Your task to perform on an android device: turn off javascript in the chrome app Image 0: 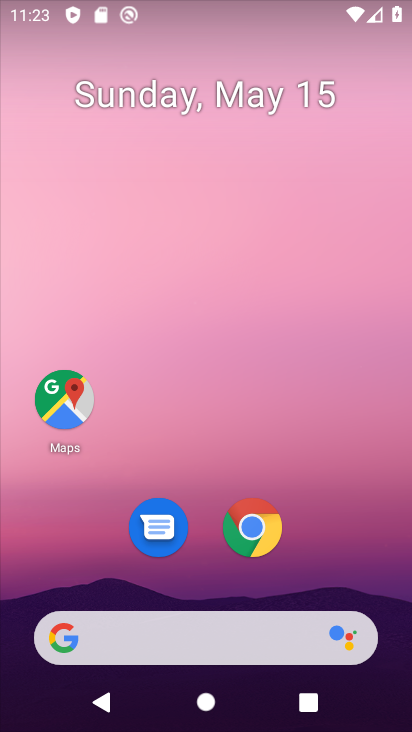
Step 0: drag from (320, 579) to (299, 121)
Your task to perform on an android device: turn off javascript in the chrome app Image 1: 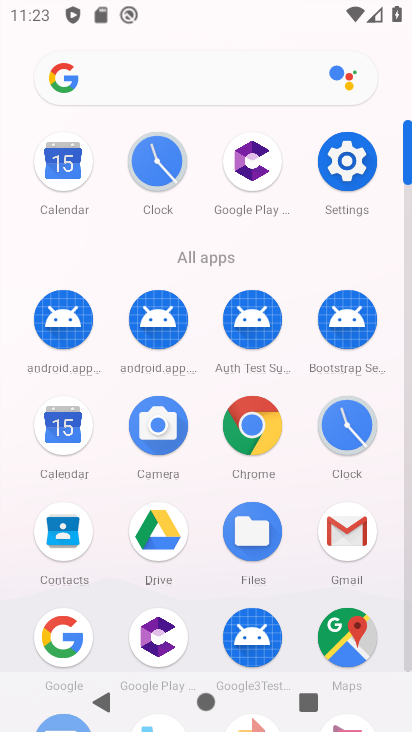
Step 1: click (256, 413)
Your task to perform on an android device: turn off javascript in the chrome app Image 2: 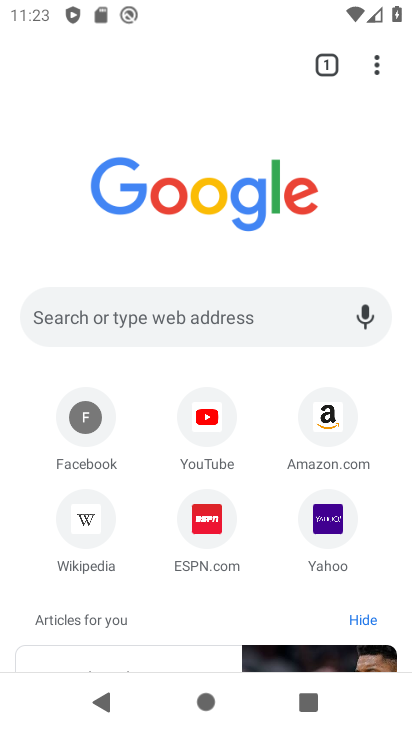
Step 2: click (387, 64)
Your task to perform on an android device: turn off javascript in the chrome app Image 3: 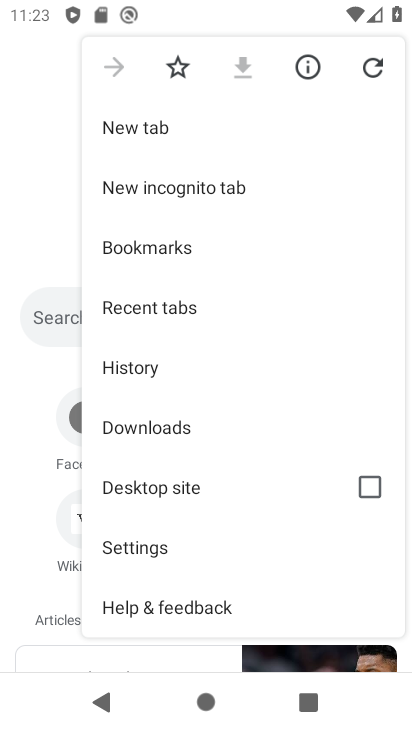
Step 3: click (183, 542)
Your task to perform on an android device: turn off javascript in the chrome app Image 4: 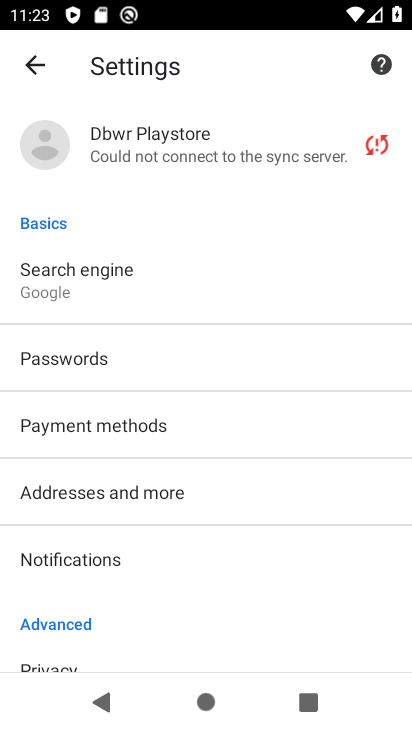
Step 4: drag from (185, 564) to (185, 237)
Your task to perform on an android device: turn off javascript in the chrome app Image 5: 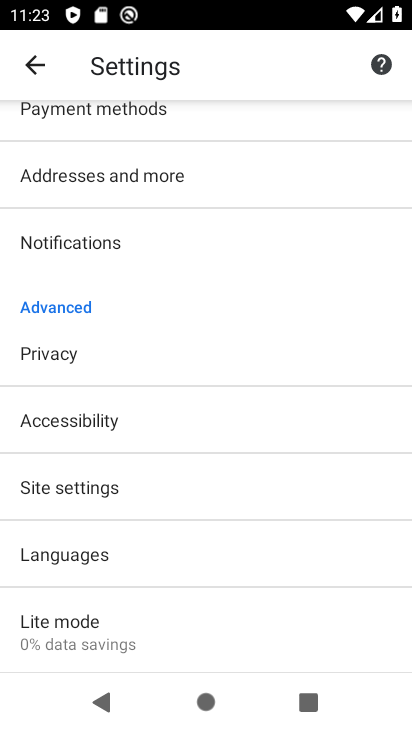
Step 5: click (246, 498)
Your task to perform on an android device: turn off javascript in the chrome app Image 6: 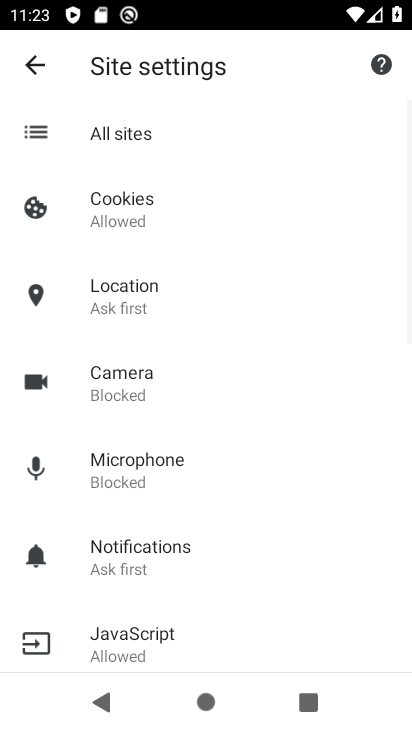
Step 6: click (201, 644)
Your task to perform on an android device: turn off javascript in the chrome app Image 7: 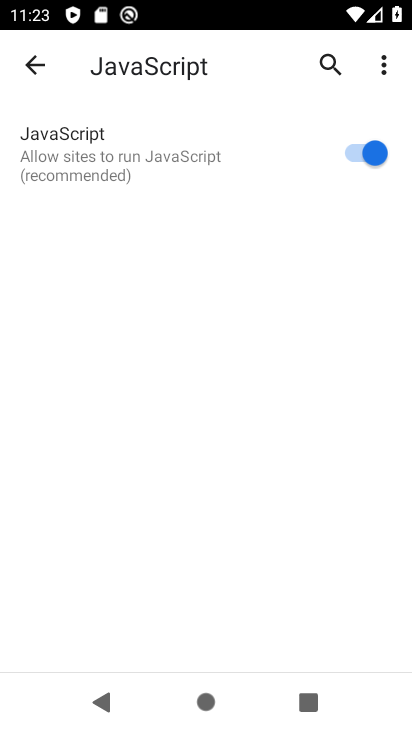
Step 7: click (355, 164)
Your task to perform on an android device: turn off javascript in the chrome app Image 8: 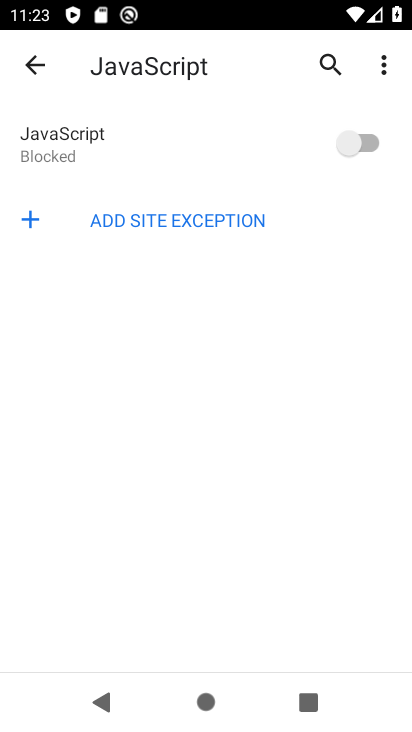
Step 8: task complete